Your task to perform on an android device: turn on wifi Image 0: 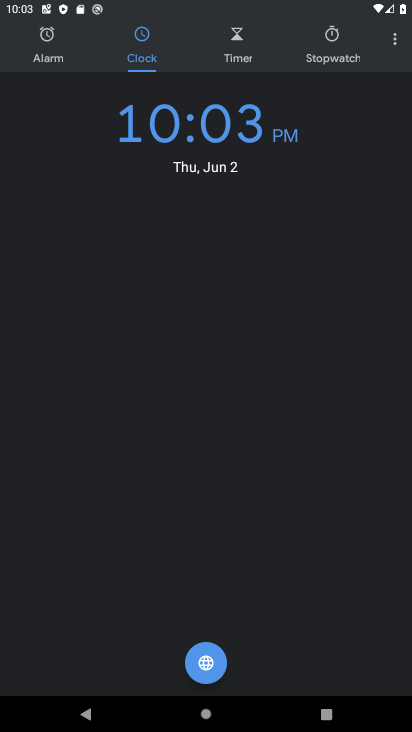
Step 0: press home button
Your task to perform on an android device: turn on wifi Image 1: 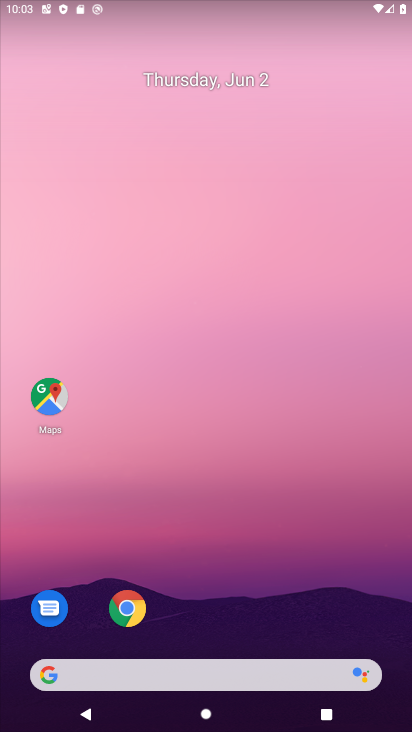
Step 1: drag from (258, 662) to (335, 203)
Your task to perform on an android device: turn on wifi Image 2: 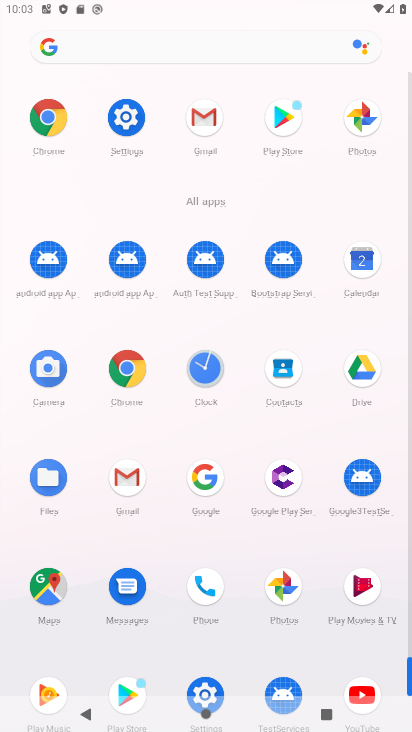
Step 2: drag from (188, 613) to (262, 326)
Your task to perform on an android device: turn on wifi Image 3: 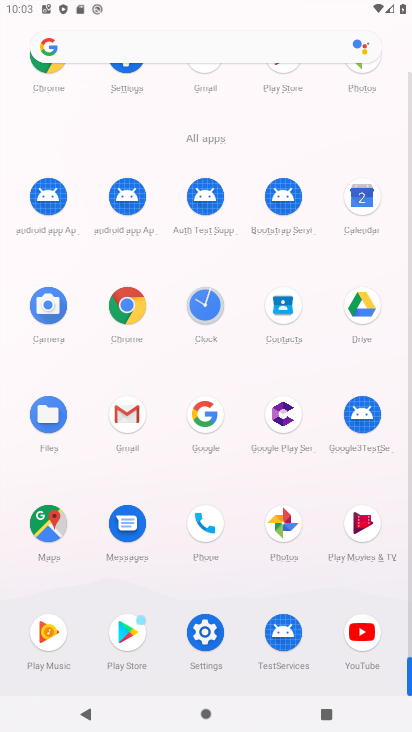
Step 3: click (220, 630)
Your task to perform on an android device: turn on wifi Image 4: 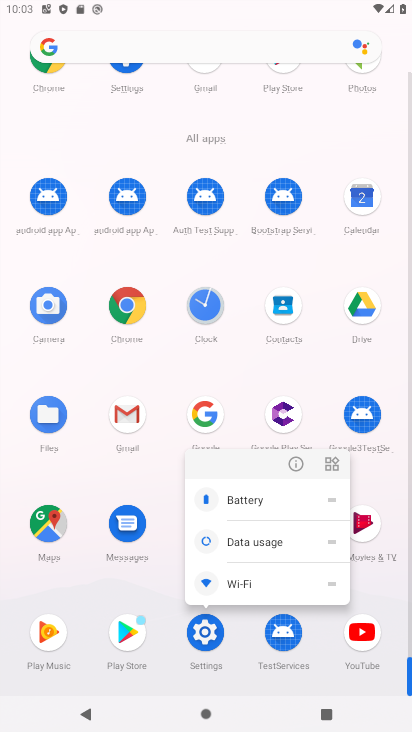
Step 4: click (212, 637)
Your task to perform on an android device: turn on wifi Image 5: 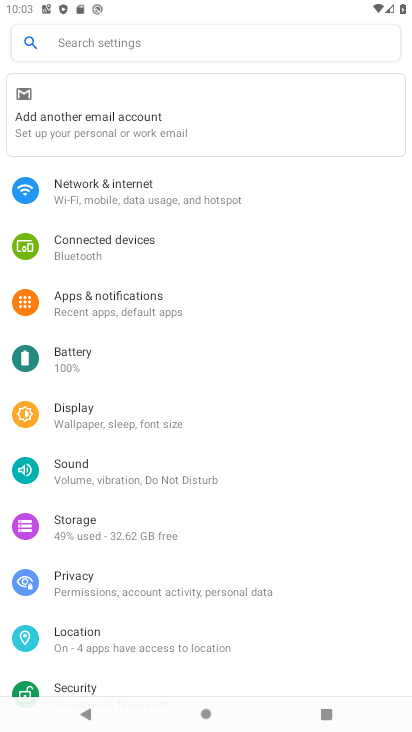
Step 5: click (177, 200)
Your task to perform on an android device: turn on wifi Image 6: 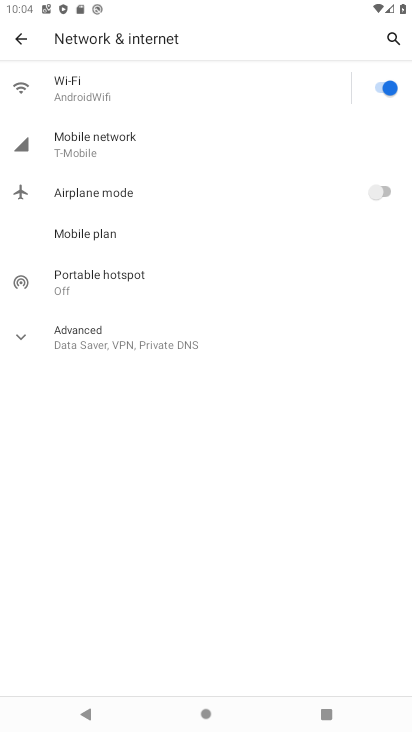
Step 6: task complete